Your task to perform on an android device: turn off priority inbox in the gmail app Image 0: 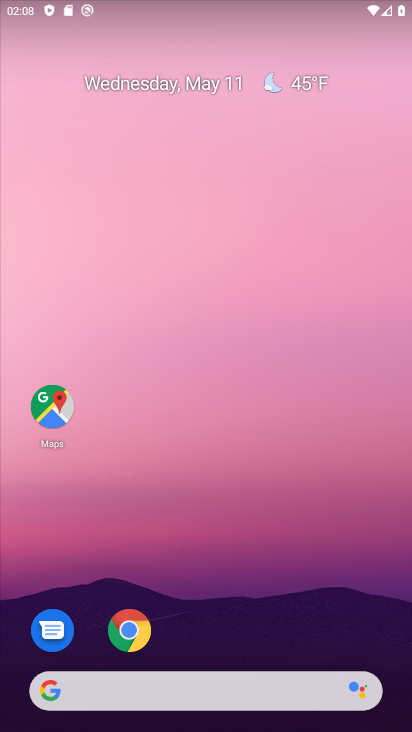
Step 0: drag from (206, 728) to (209, 231)
Your task to perform on an android device: turn off priority inbox in the gmail app Image 1: 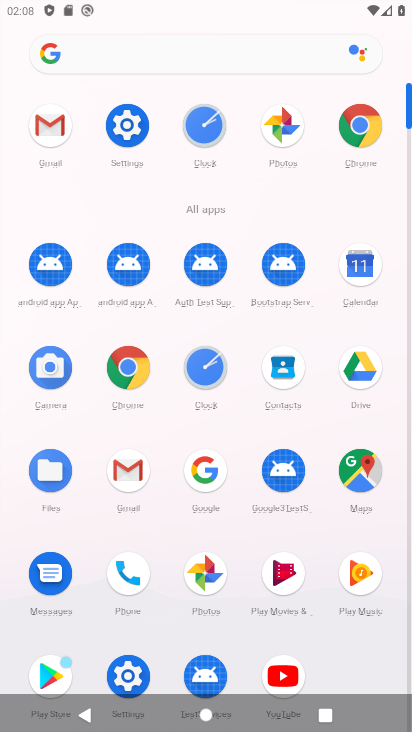
Step 1: click (45, 126)
Your task to perform on an android device: turn off priority inbox in the gmail app Image 2: 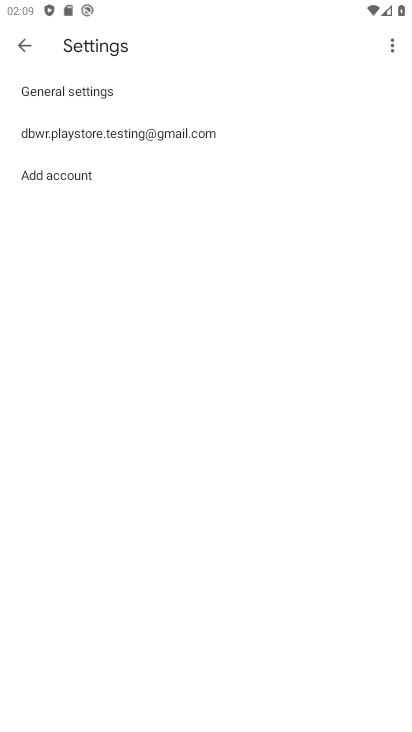
Step 2: click (101, 134)
Your task to perform on an android device: turn off priority inbox in the gmail app Image 3: 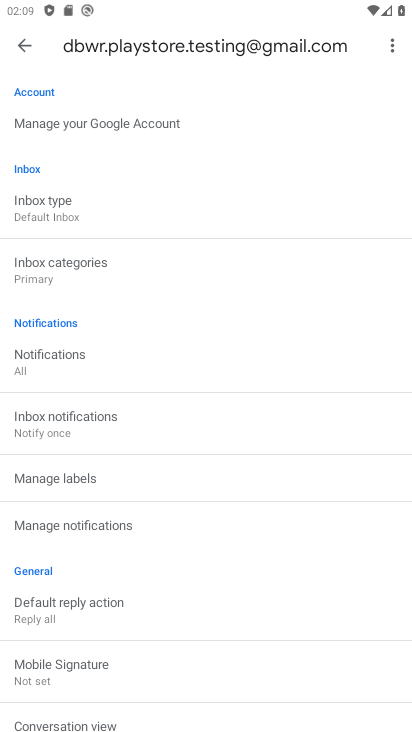
Step 3: click (47, 204)
Your task to perform on an android device: turn off priority inbox in the gmail app Image 4: 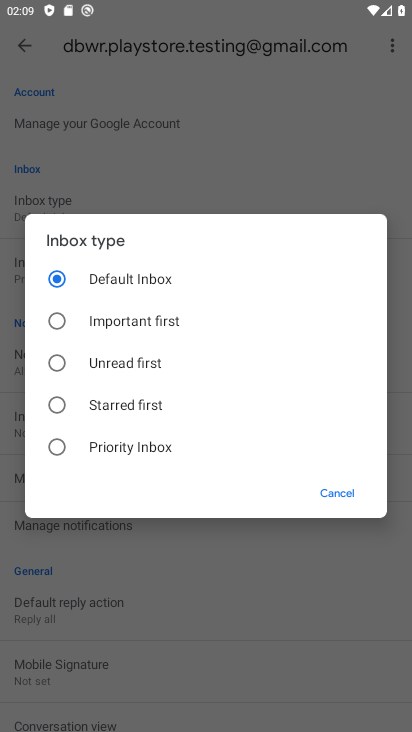
Step 4: click (105, 168)
Your task to perform on an android device: turn off priority inbox in the gmail app Image 5: 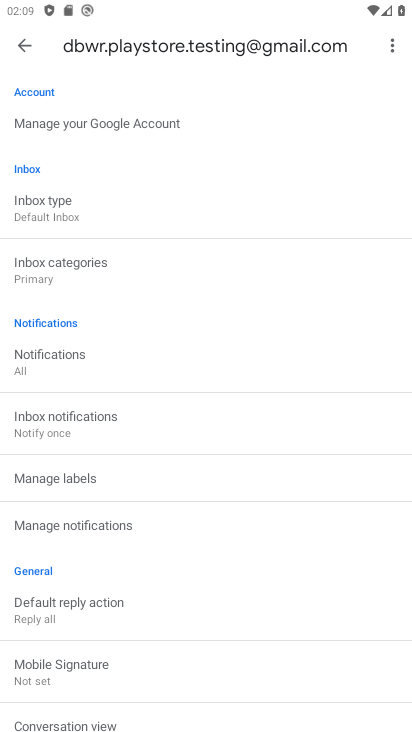
Step 5: task complete